Your task to perform on an android device: Add "logitech g pro" to the cart on walmart, then select checkout. Image 0: 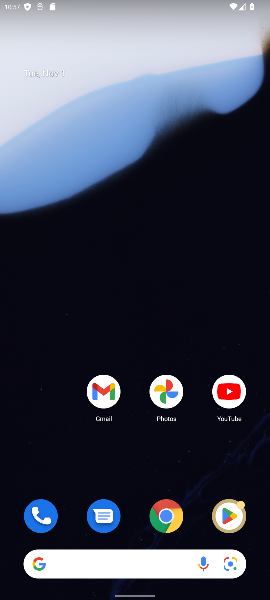
Step 0: click (167, 519)
Your task to perform on an android device: Add "logitech g pro" to the cart on walmart, then select checkout. Image 1: 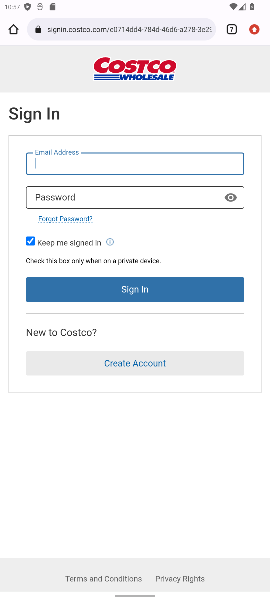
Step 1: click (230, 33)
Your task to perform on an android device: Add "logitech g pro" to the cart on walmart, then select checkout. Image 2: 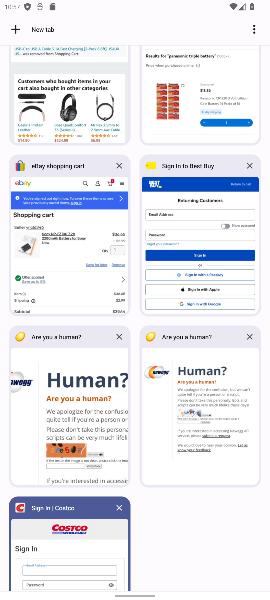
Step 2: click (205, 105)
Your task to perform on an android device: Add "logitech g pro" to the cart on walmart, then select checkout. Image 3: 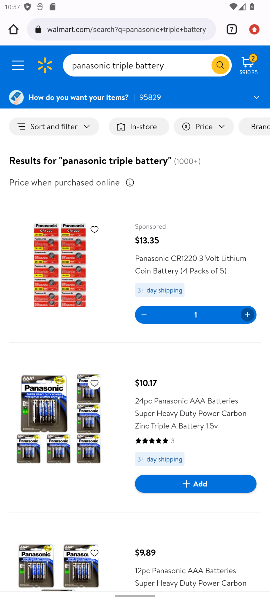
Step 3: click (163, 61)
Your task to perform on an android device: Add "logitech g pro" to the cart on walmart, then select checkout. Image 4: 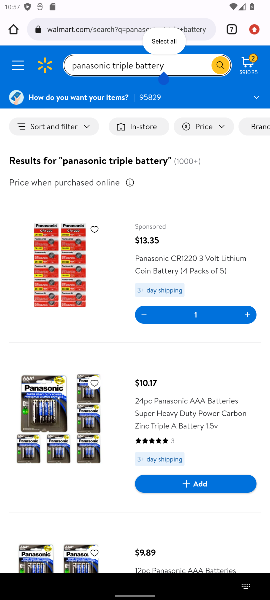
Step 4: click (189, 68)
Your task to perform on an android device: Add "logitech g pro" to the cart on walmart, then select checkout. Image 5: 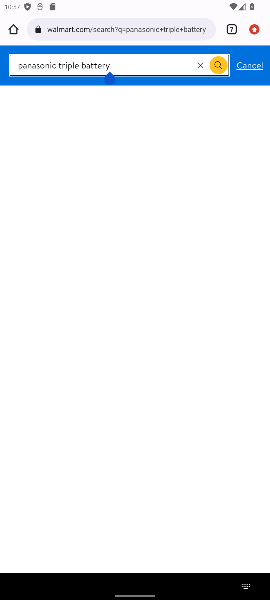
Step 5: click (199, 67)
Your task to perform on an android device: Add "logitech g pro" to the cart on walmart, then select checkout. Image 6: 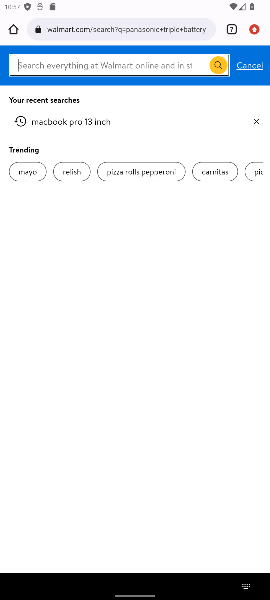
Step 6: type "logitech g pro"
Your task to perform on an android device: Add "logitech g pro" to the cart on walmart, then select checkout. Image 7: 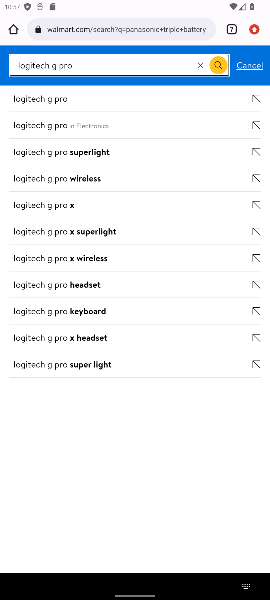
Step 7: click (49, 121)
Your task to perform on an android device: Add "logitech g pro" to the cart on walmart, then select checkout. Image 8: 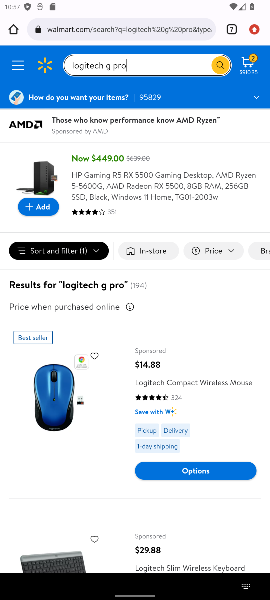
Step 8: click (171, 383)
Your task to perform on an android device: Add "logitech g pro" to the cart on walmart, then select checkout. Image 9: 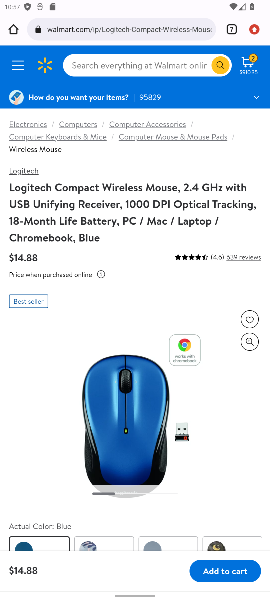
Step 9: click (229, 573)
Your task to perform on an android device: Add "logitech g pro" to the cart on walmart, then select checkout. Image 10: 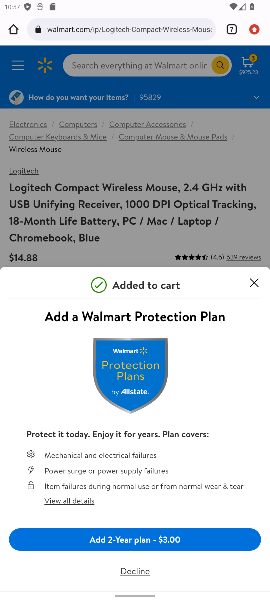
Step 10: click (137, 569)
Your task to perform on an android device: Add "logitech g pro" to the cart on walmart, then select checkout. Image 11: 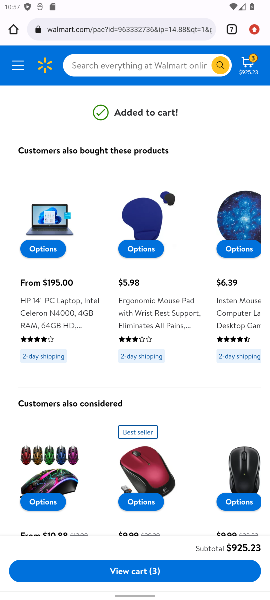
Step 11: click (143, 572)
Your task to perform on an android device: Add "logitech g pro" to the cart on walmart, then select checkout. Image 12: 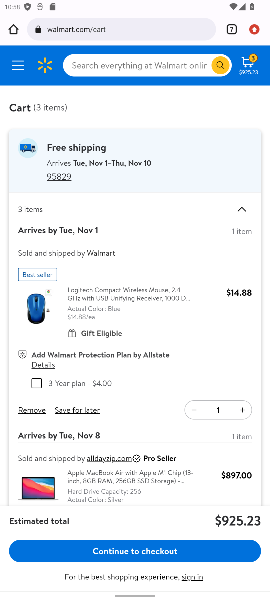
Step 12: click (99, 549)
Your task to perform on an android device: Add "logitech g pro" to the cart on walmart, then select checkout. Image 13: 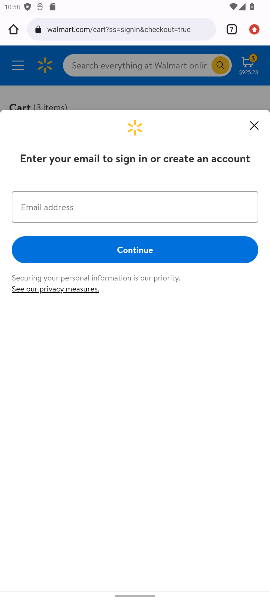
Step 13: task complete